Your task to perform on an android device: Open CNN.com Image 0: 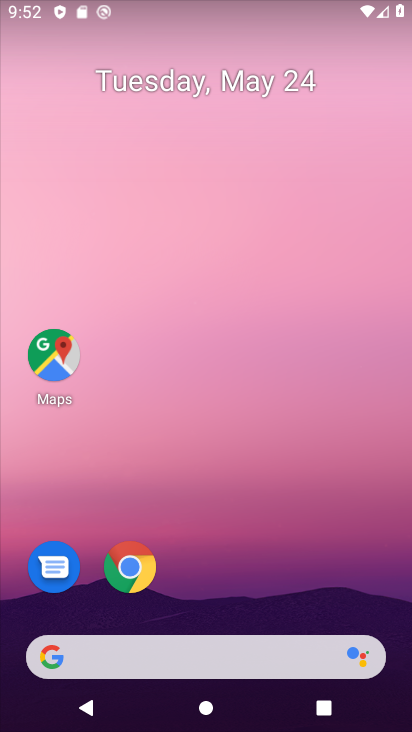
Step 0: click (137, 557)
Your task to perform on an android device: Open CNN.com Image 1: 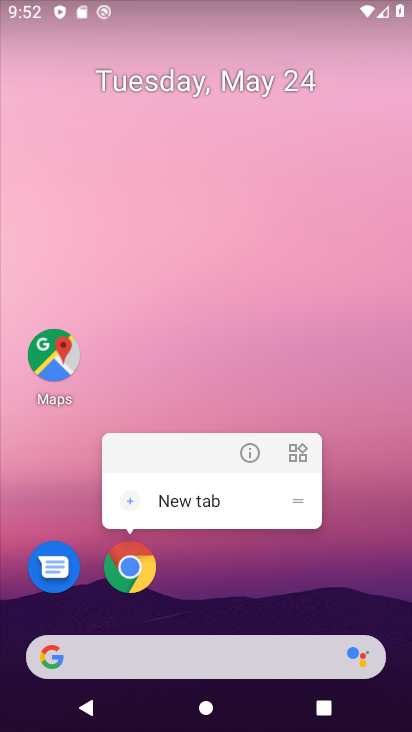
Step 1: click (127, 567)
Your task to perform on an android device: Open CNN.com Image 2: 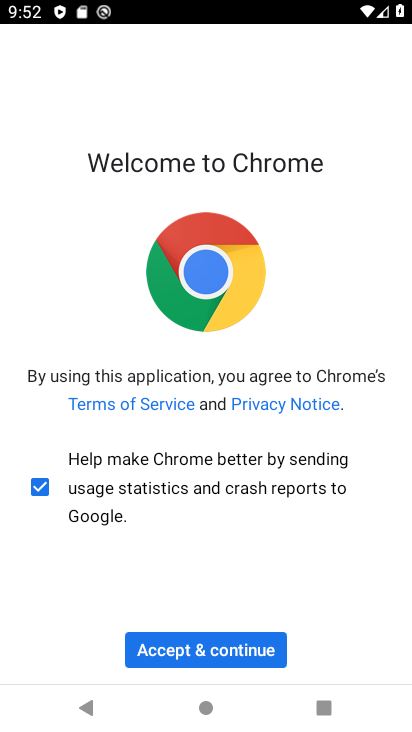
Step 2: click (222, 650)
Your task to perform on an android device: Open CNN.com Image 3: 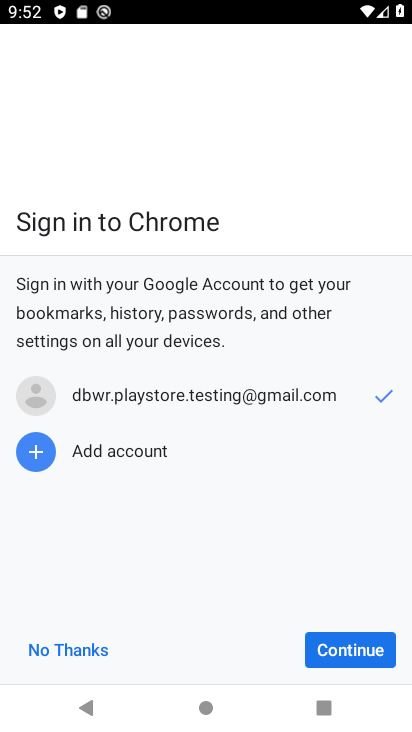
Step 3: click (351, 643)
Your task to perform on an android device: Open CNN.com Image 4: 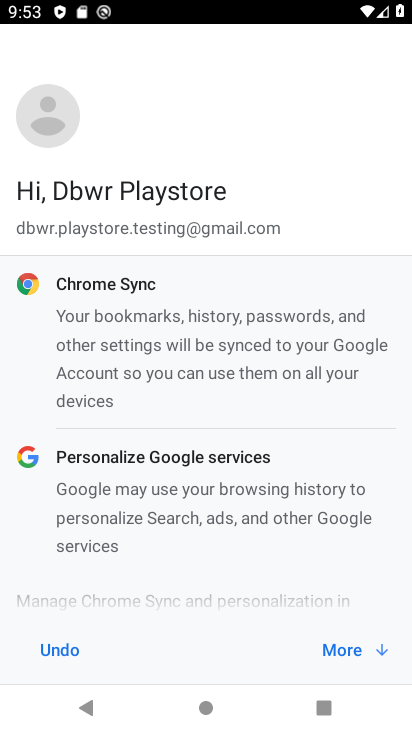
Step 4: click (334, 649)
Your task to perform on an android device: Open CNN.com Image 5: 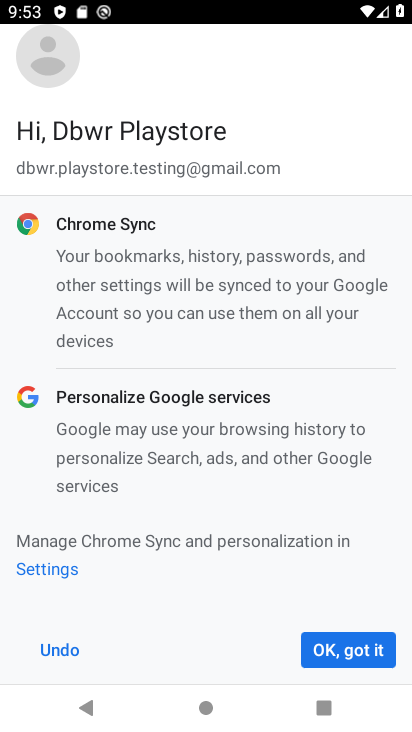
Step 5: click (333, 649)
Your task to perform on an android device: Open CNN.com Image 6: 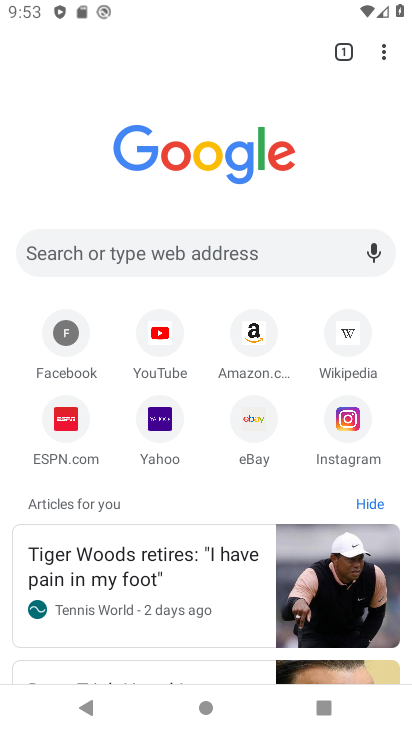
Step 6: click (209, 251)
Your task to perform on an android device: Open CNN.com Image 7: 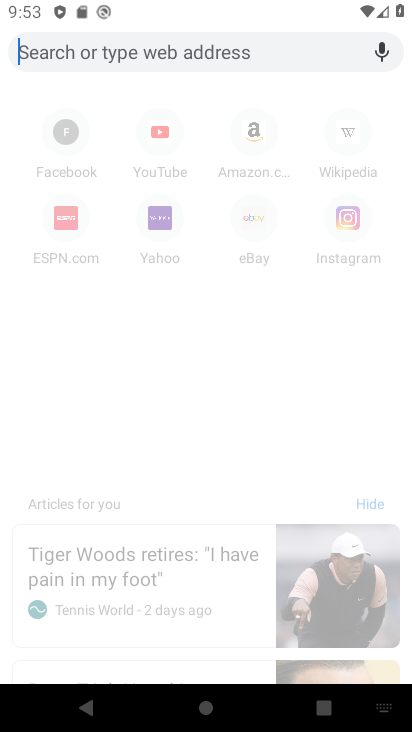
Step 7: type "CNN.com"
Your task to perform on an android device: Open CNN.com Image 8: 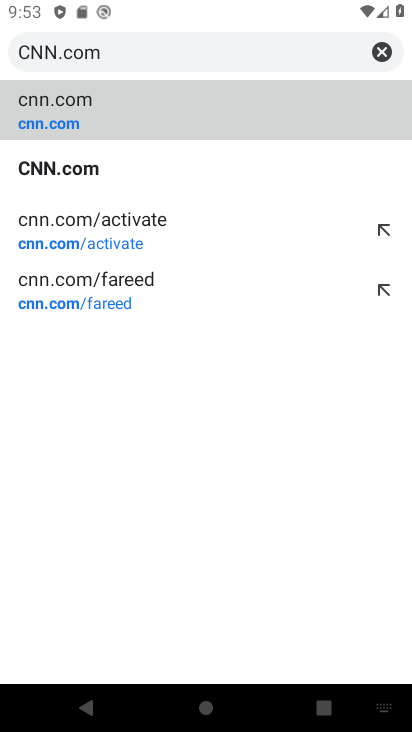
Step 8: click (61, 159)
Your task to perform on an android device: Open CNN.com Image 9: 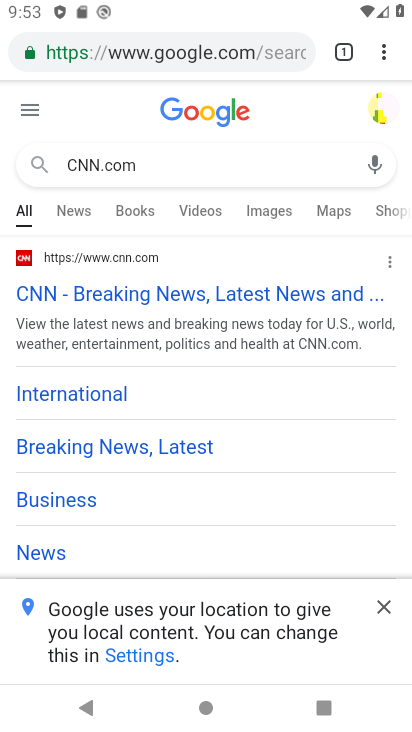
Step 9: task complete